Your task to perform on an android device: Open Google Chrome Image 0: 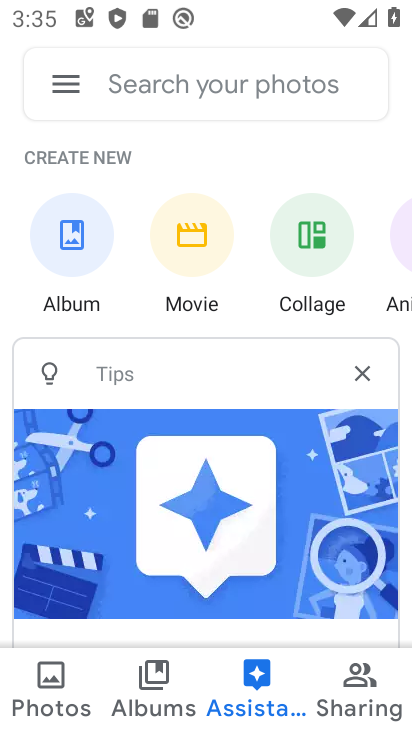
Step 0: press home button
Your task to perform on an android device: Open Google Chrome Image 1: 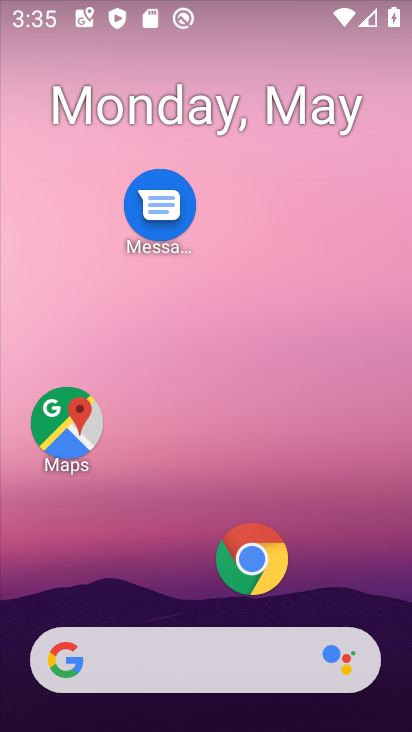
Step 1: click (253, 561)
Your task to perform on an android device: Open Google Chrome Image 2: 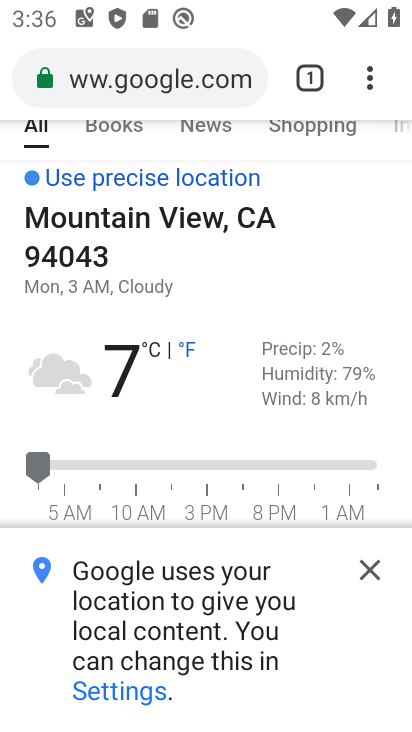
Step 2: task complete